Your task to perform on an android device: When is my next appointment? Image 0: 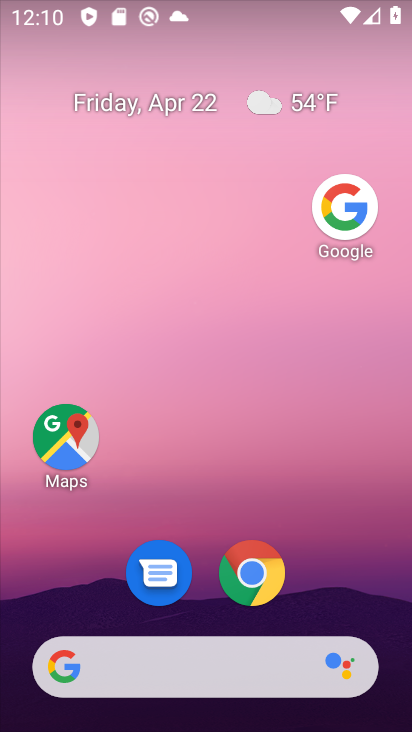
Step 0: drag from (199, 679) to (265, 72)
Your task to perform on an android device: When is my next appointment? Image 1: 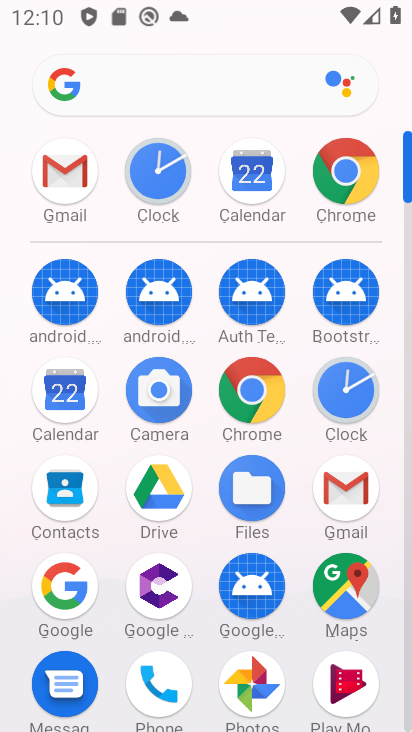
Step 1: click (77, 397)
Your task to perform on an android device: When is my next appointment? Image 2: 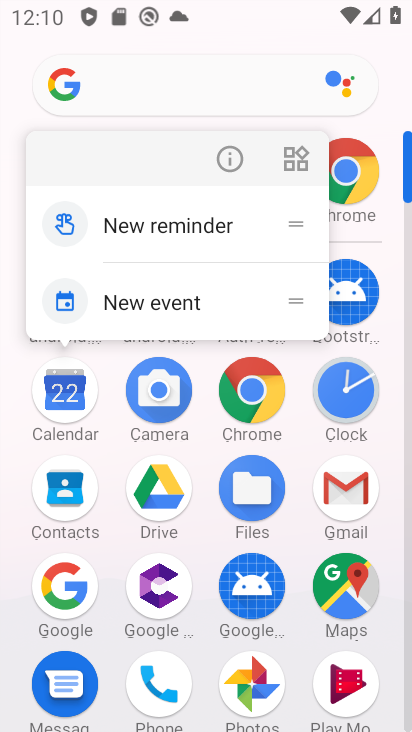
Step 2: click (77, 398)
Your task to perform on an android device: When is my next appointment? Image 3: 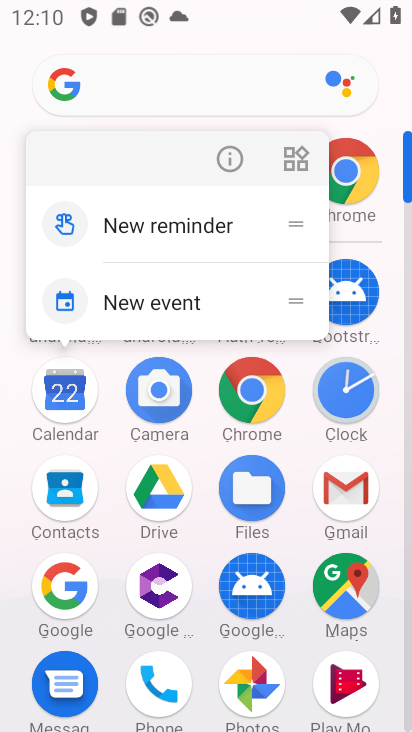
Step 3: click (62, 403)
Your task to perform on an android device: When is my next appointment? Image 4: 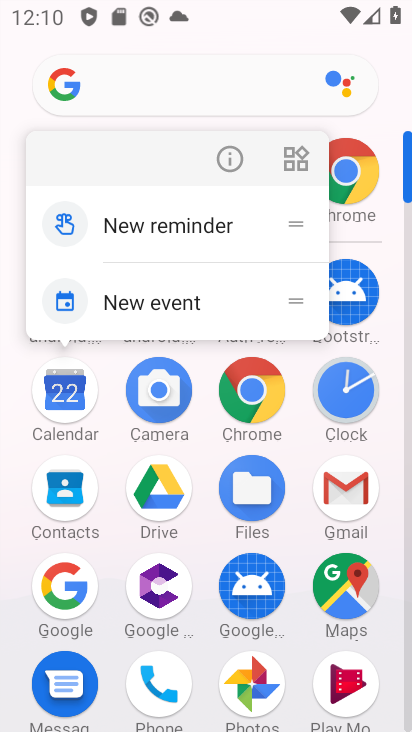
Step 4: click (68, 398)
Your task to perform on an android device: When is my next appointment? Image 5: 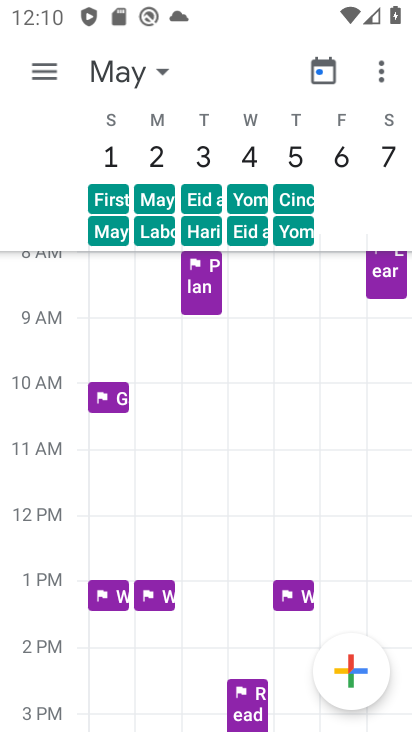
Step 5: click (109, 78)
Your task to perform on an android device: When is my next appointment? Image 6: 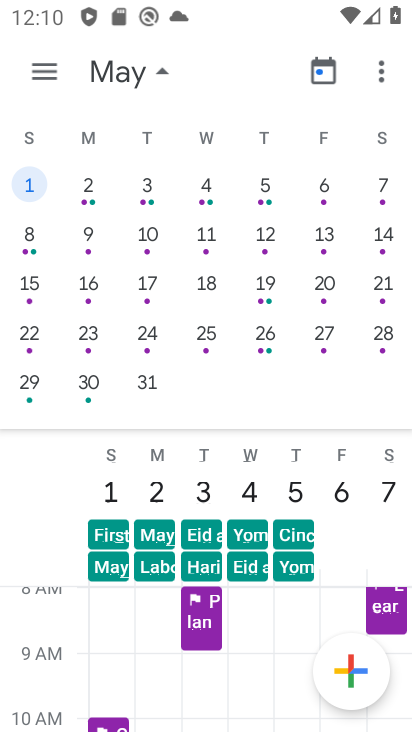
Step 6: drag from (26, 305) to (407, 333)
Your task to perform on an android device: When is my next appointment? Image 7: 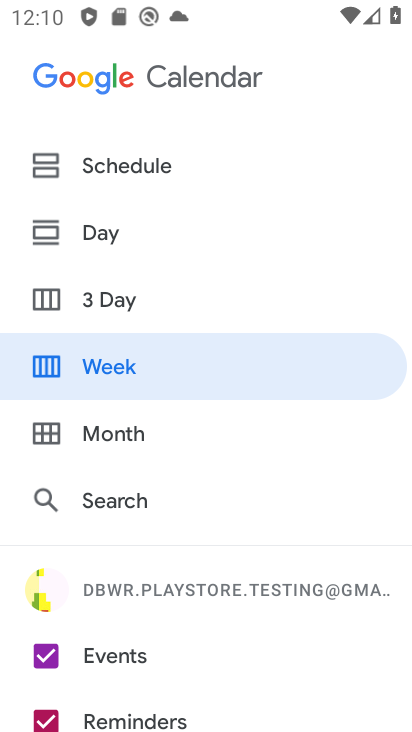
Step 7: drag from (394, 252) to (18, 308)
Your task to perform on an android device: When is my next appointment? Image 8: 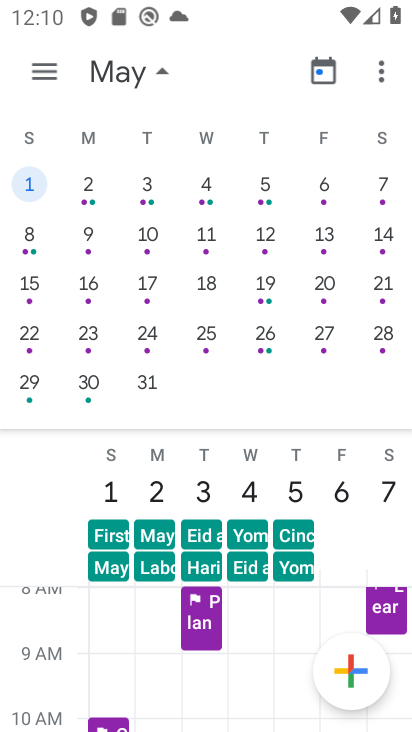
Step 8: drag from (344, 219) to (411, 289)
Your task to perform on an android device: When is my next appointment? Image 9: 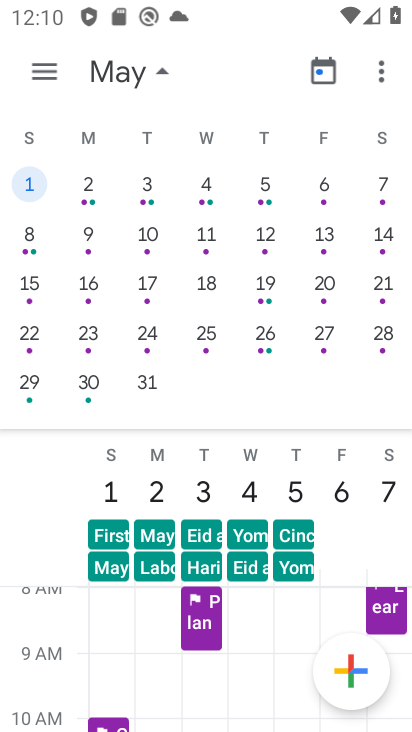
Step 9: drag from (177, 259) to (409, 308)
Your task to perform on an android device: When is my next appointment? Image 10: 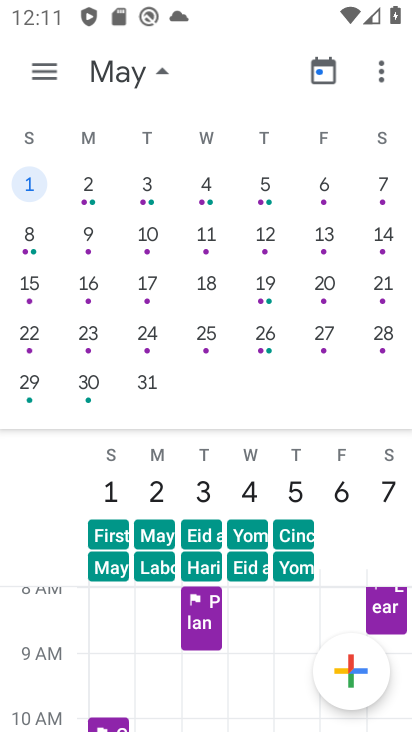
Step 10: drag from (218, 217) to (406, 410)
Your task to perform on an android device: When is my next appointment? Image 11: 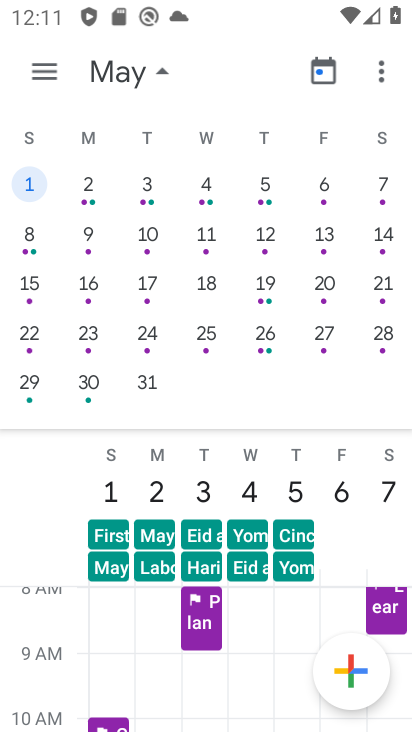
Step 11: drag from (132, 322) to (411, 298)
Your task to perform on an android device: When is my next appointment? Image 12: 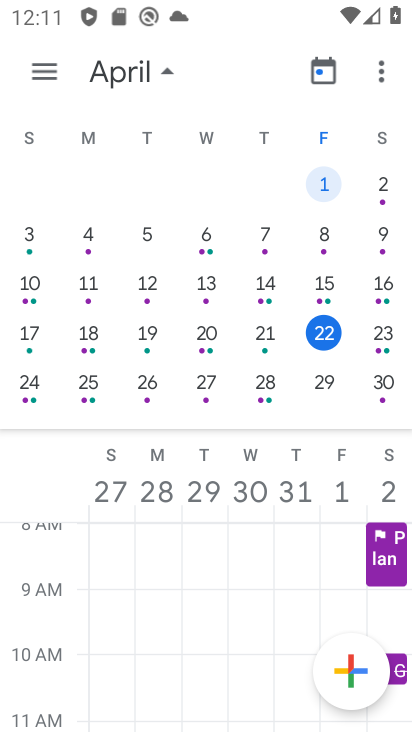
Step 12: drag from (131, 296) to (406, 320)
Your task to perform on an android device: When is my next appointment? Image 13: 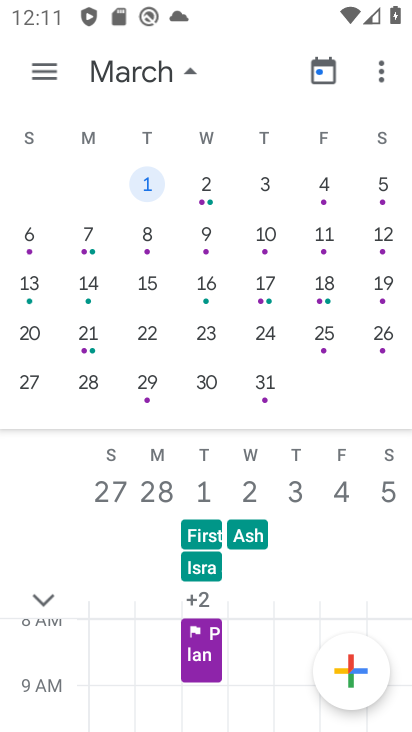
Step 13: drag from (380, 351) to (42, 362)
Your task to perform on an android device: When is my next appointment? Image 14: 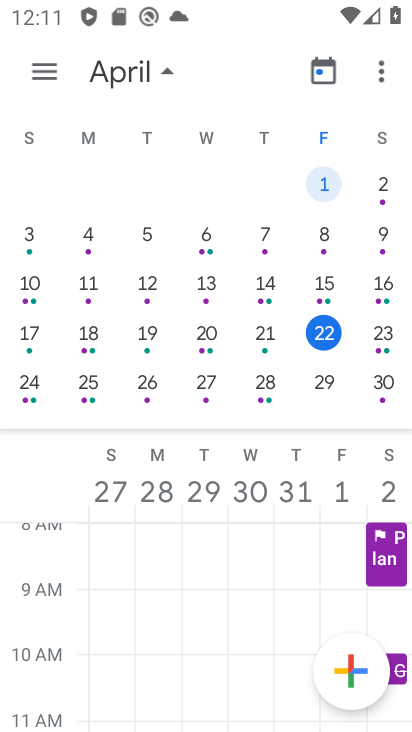
Step 14: click (326, 335)
Your task to perform on an android device: When is my next appointment? Image 15: 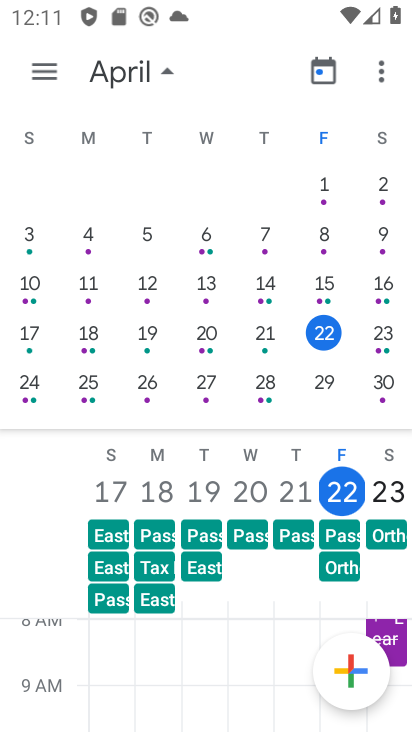
Step 15: click (52, 66)
Your task to perform on an android device: When is my next appointment? Image 16: 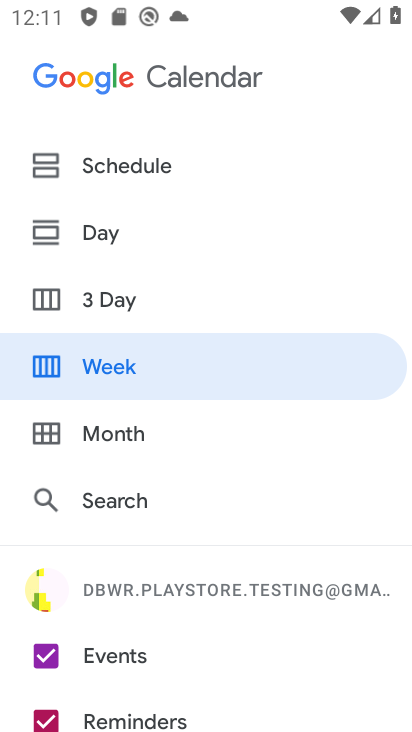
Step 16: click (112, 173)
Your task to perform on an android device: When is my next appointment? Image 17: 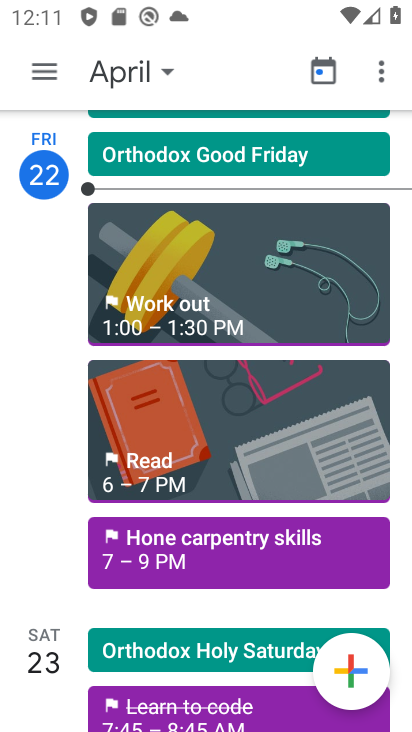
Step 17: click (188, 562)
Your task to perform on an android device: When is my next appointment? Image 18: 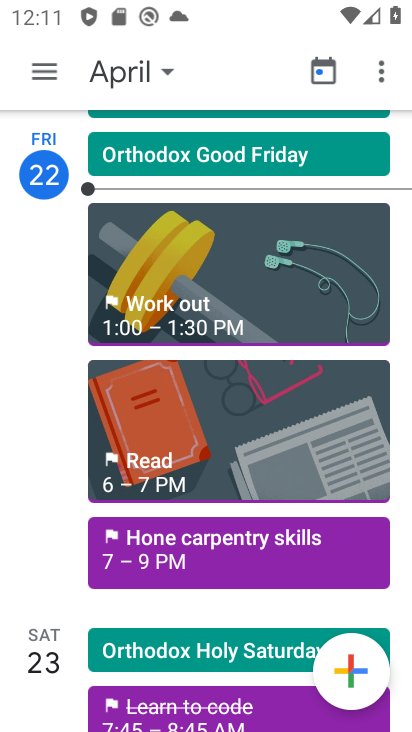
Step 18: click (172, 533)
Your task to perform on an android device: When is my next appointment? Image 19: 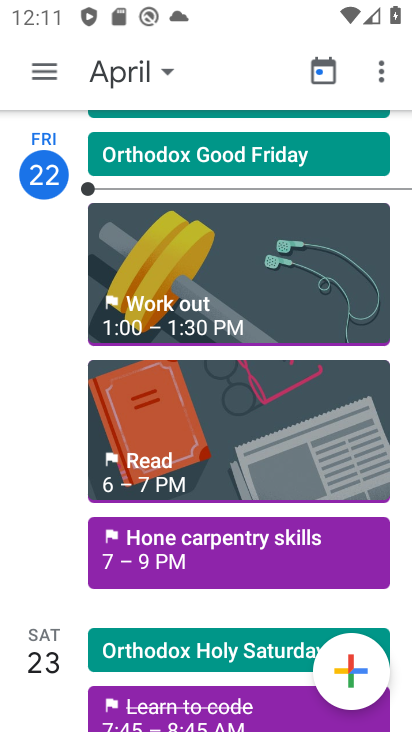
Step 19: click (204, 545)
Your task to perform on an android device: When is my next appointment? Image 20: 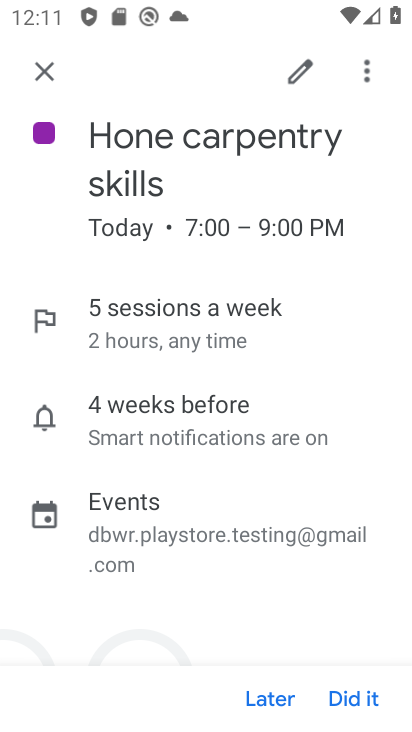
Step 20: task complete